Your task to perform on an android device: snooze an email in the gmail app Image 0: 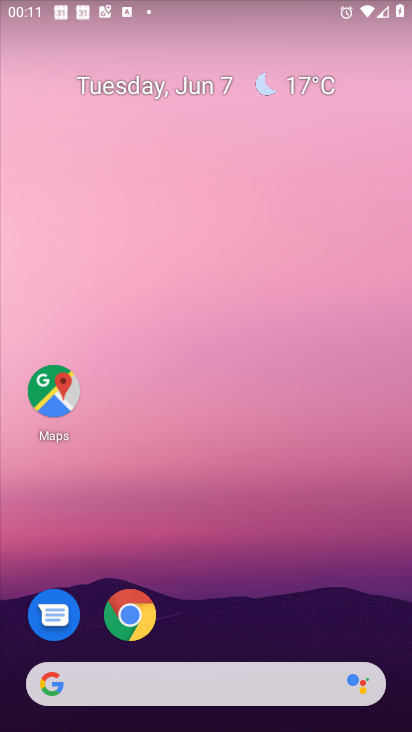
Step 0: drag from (399, 686) to (314, 48)
Your task to perform on an android device: snooze an email in the gmail app Image 1: 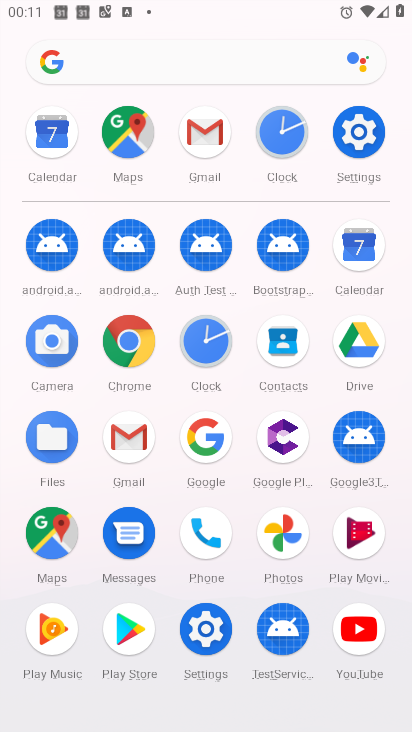
Step 1: click (113, 451)
Your task to perform on an android device: snooze an email in the gmail app Image 2: 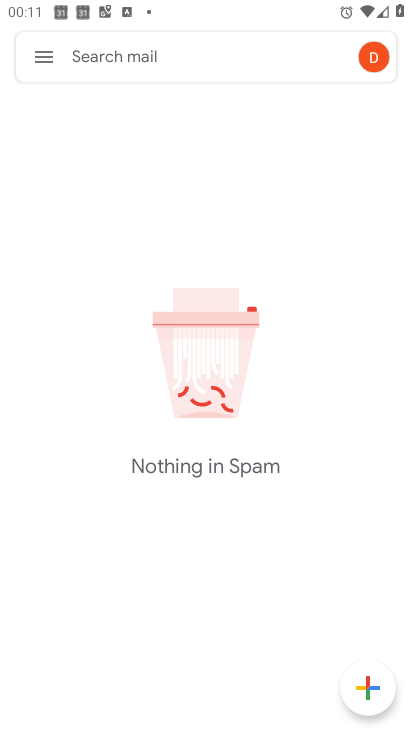
Step 2: click (34, 45)
Your task to perform on an android device: snooze an email in the gmail app Image 3: 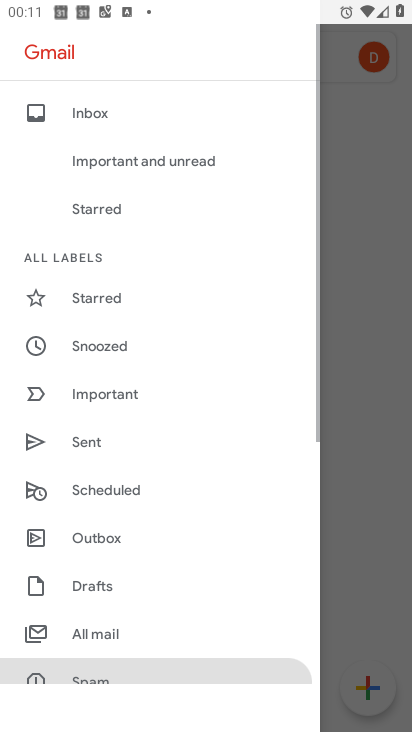
Step 3: click (91, 101)
Your task to perform on an android device: snooze an email in the gmail app Image 4: 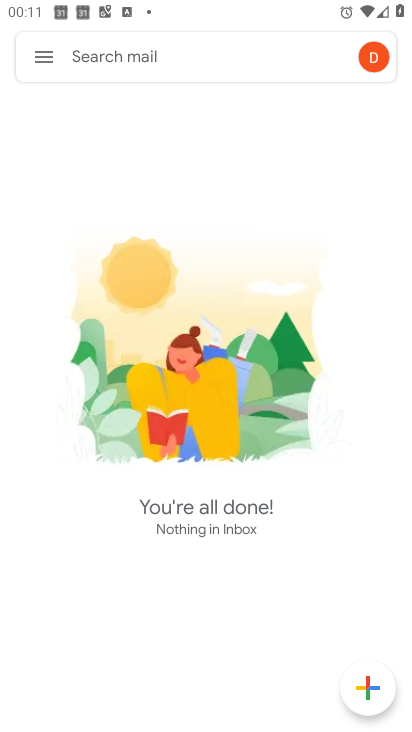
Step 4: task complete